Your task to perform on an android device: Open Google Chrome and click the shortcut for Amazon.com Image 0: 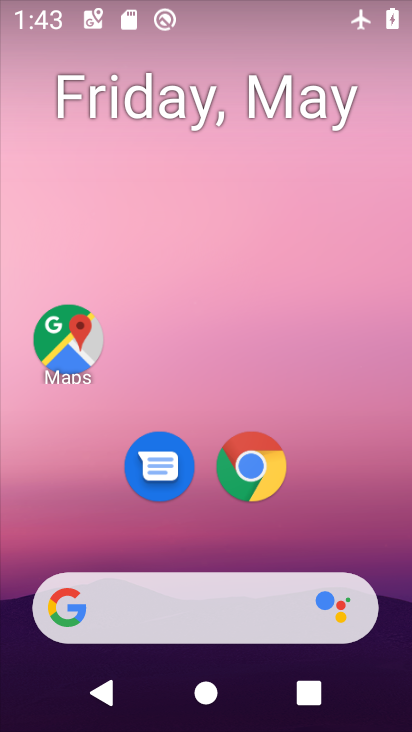
Step 0: click (268, 472)
Your task to perform on an android device: Open Google Chrome and click the shortcut for Amazon.com Image 1: 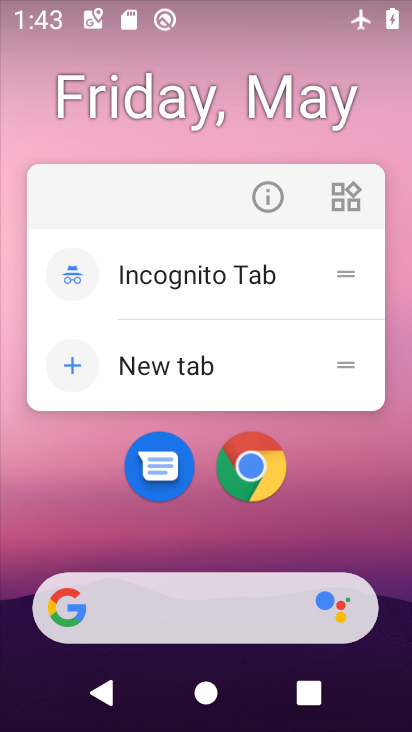
Step 1: click (268, 470)
Your task to perform on an android device: Open Google Chrome and click the shortcut for Amazon.com Image 2: 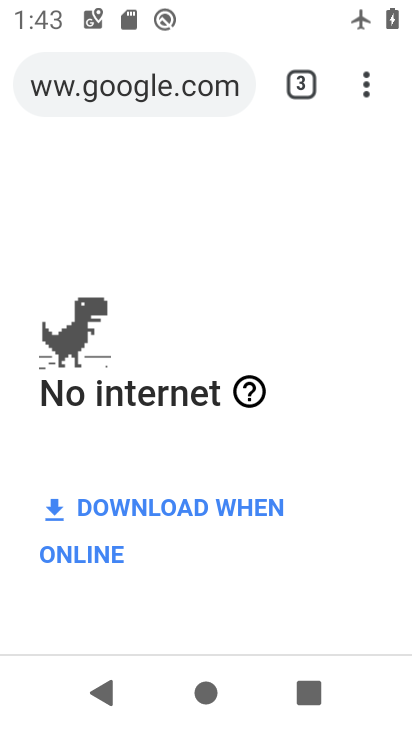
Step 2: click (170, 87)
Your task to perform on an android device: Open Google Chrome and click the shortcut for Amazon.com Image 3: 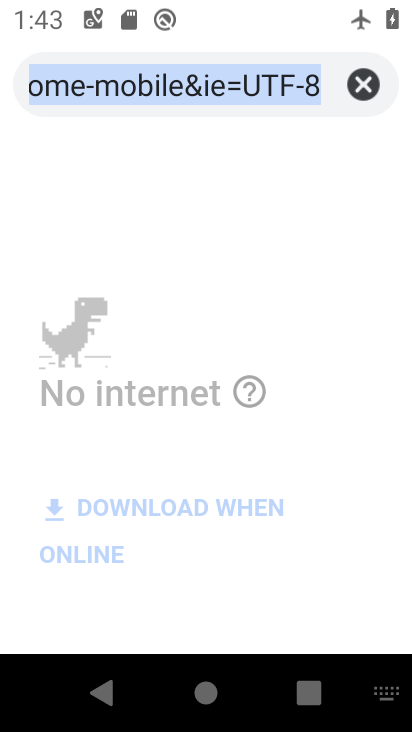
Step 3: click (365, 87)
Your task to perform on an android device: Open Google Chrome and click the shortcut for Amazon.com Image 4: 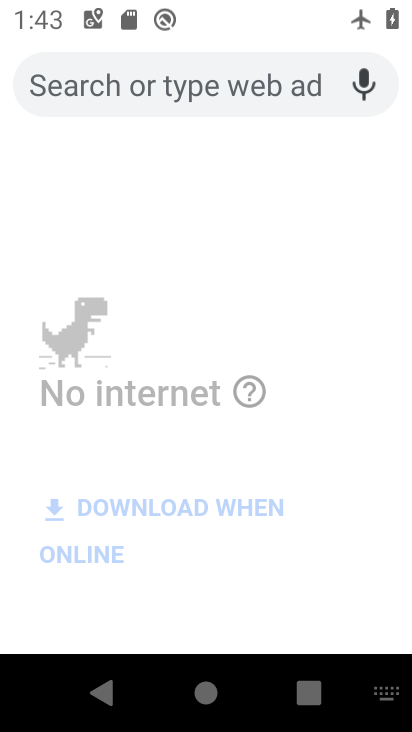
Step 4: type "amazon"
Your task to perform on an android device: Open Google Chrome and click the shortcut for Amazon.com Image 5: 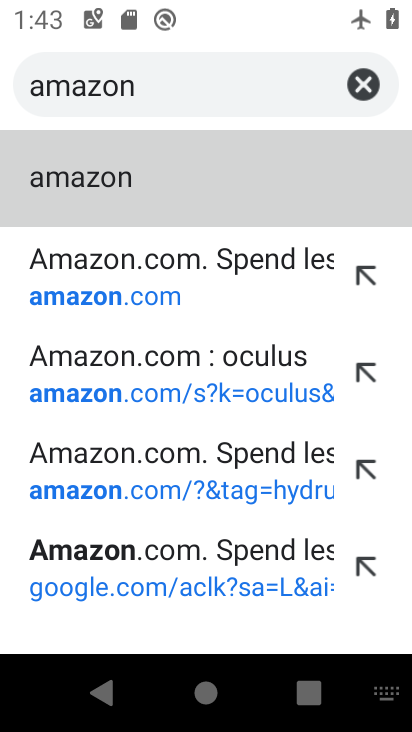
Step 5: click (161, 262)
Your task to perform on an android device: Open Google Chrome and click the shortcut for Amazon.com Image 6: 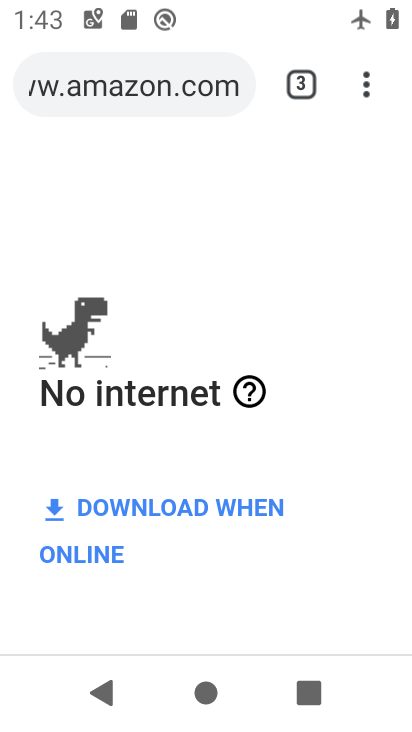
Step 6: task complete